Your task to perform on an android device: Open the phone app and click the voicemail tab. Image 0: 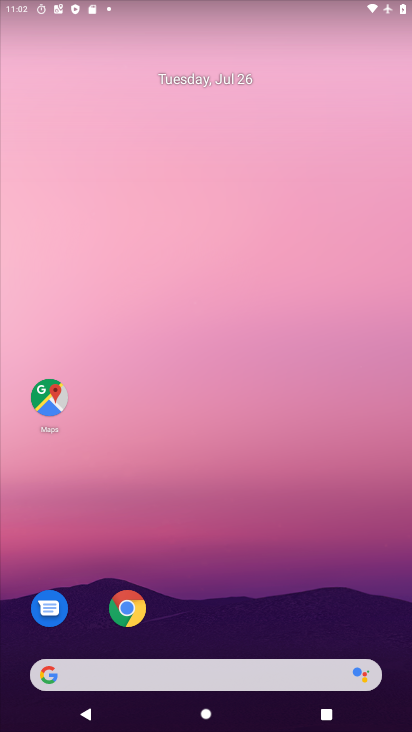
Step 0: drag from (233, 597) to (267, 43)
Your task to perform on an android device: Open the phone app and click the voicemail tab. Image 1: 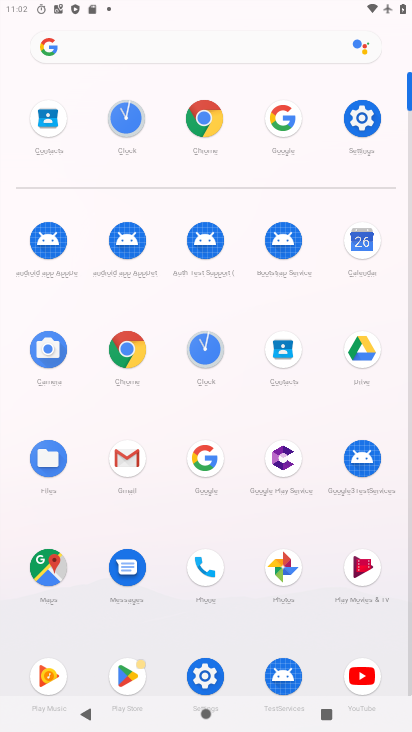
Step 1: click (215, 578)
Your task to perform on an android device: Open the phone app and click the voicemail tab. Image 2: 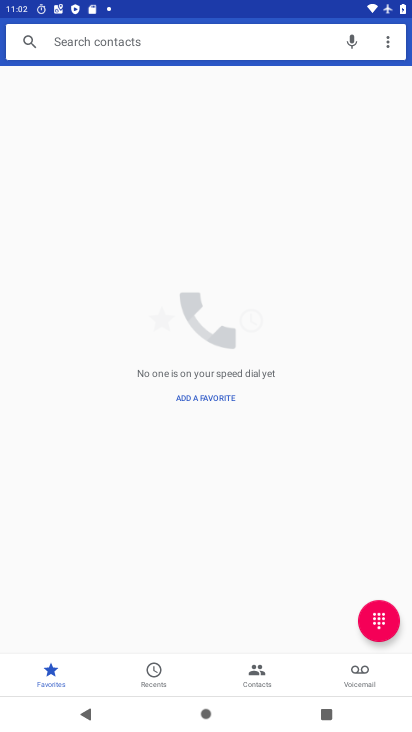
Step 2: click (360, 688)
Your task to perform on an android device: Open the phone app and click the voicemail tab. Image 3: 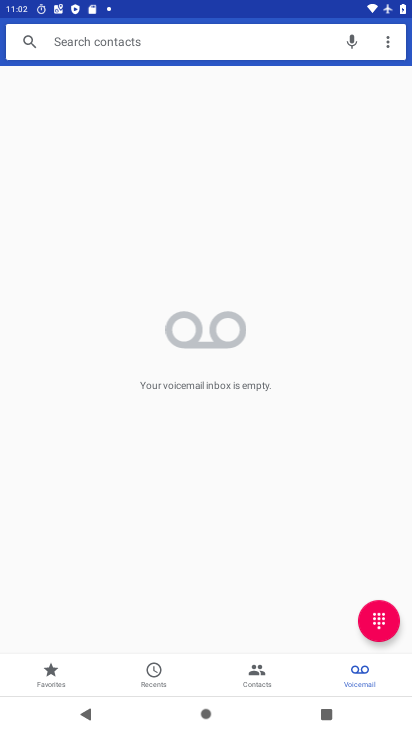
Step 3: task complete